Your task to perform on an android device: add a contact in the contacts app Image 0: 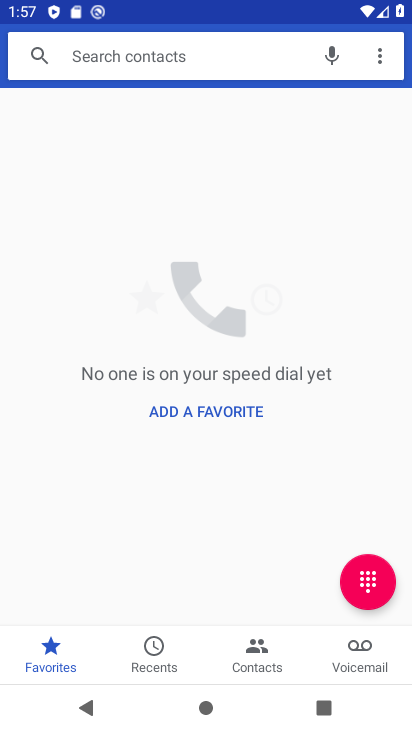
Step 0: press home button
Your task to perform on an android device: add a contact in the contacts app Image 1: 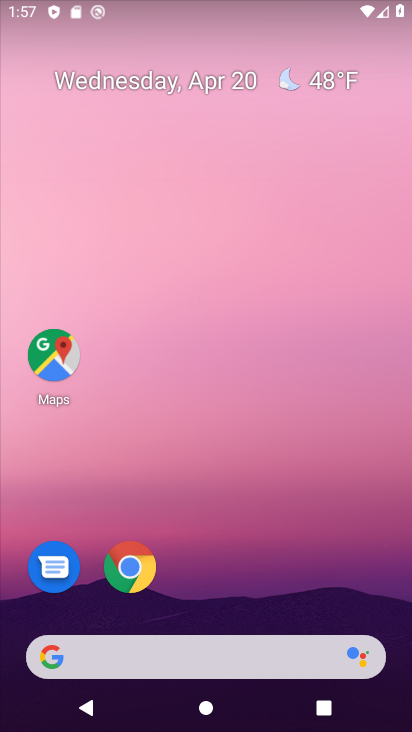
Step 1: drag from (270, 590) to (248, 129)
Your task to perform on an android device: add a contact in the contacts app Image 2: 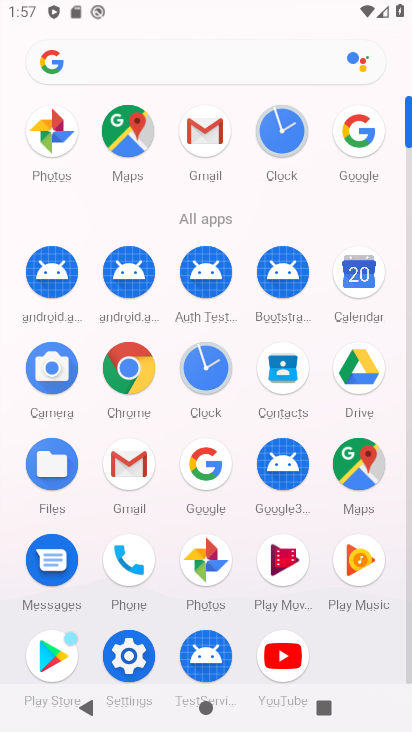
Step 2: click (275, 369)
Your task to perform on an android device: add a contact in the contacts app Image 3: 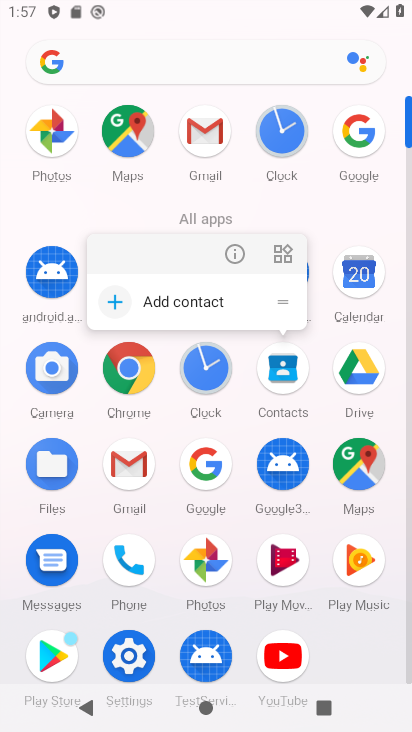
Step 3: click (276, 370)
Your task to perform on an android device: add a contact in the contacts app Image 4: 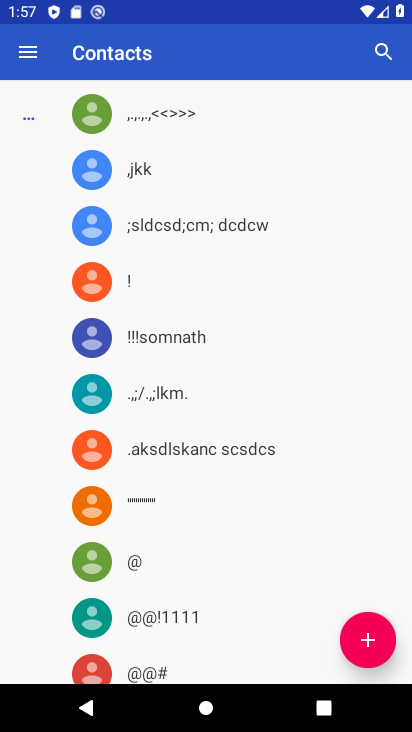
Step 4: click (375, 638)
Your task to perform on an android device: add a contact in the contacts app Image 5: 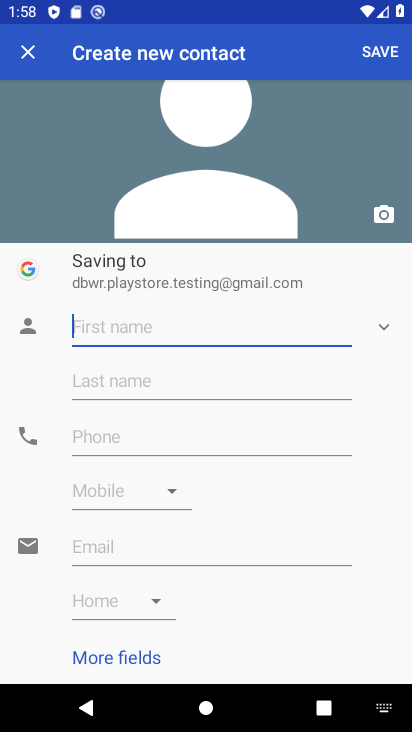
Step 5: type "oiuytfghj"
Your task to perform on an android device: add a contact in the contacts app Image 6: 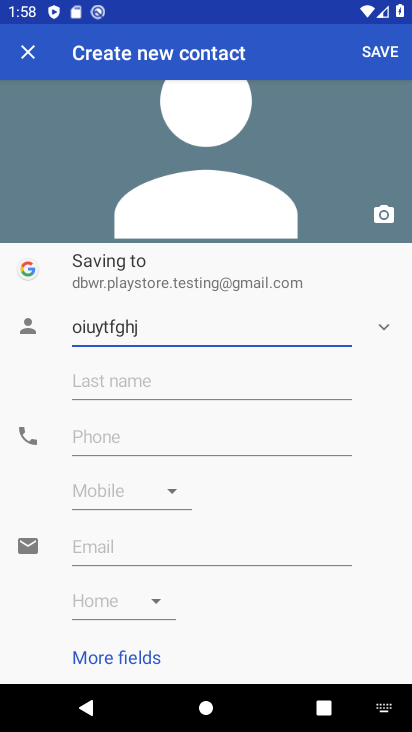
Step 6: click (162, 437)
Your task to perform on an android device: add a contact in the contacts app Image 7: 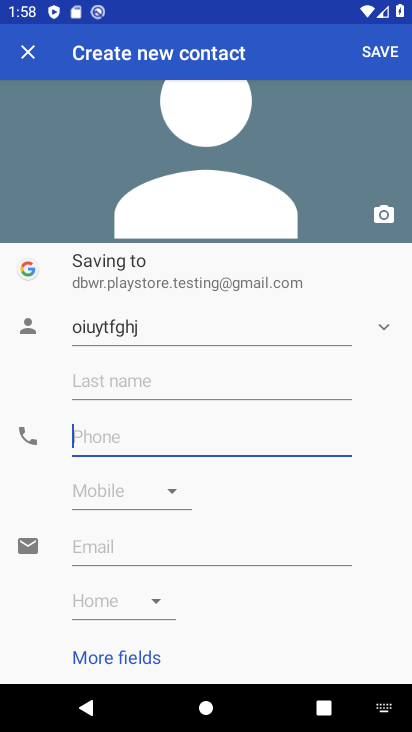
Step 7: type "56788765686"
Your task to perform on an android device: add a contact in the contacts app Image 8: 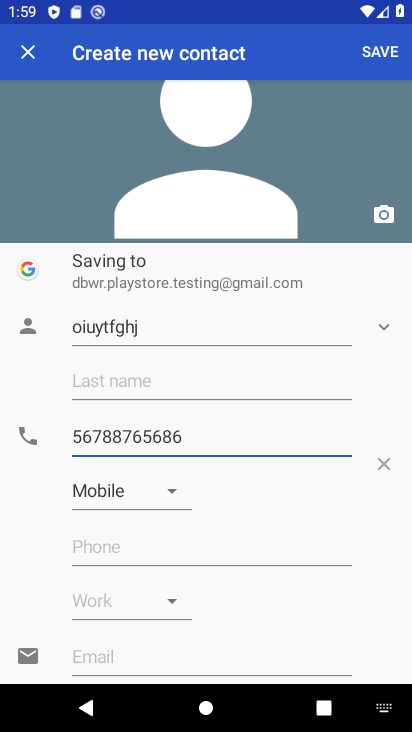
Step 8: click (380, 49)
Your task to perform on an android device: add a contact in the contacts app Image 9: 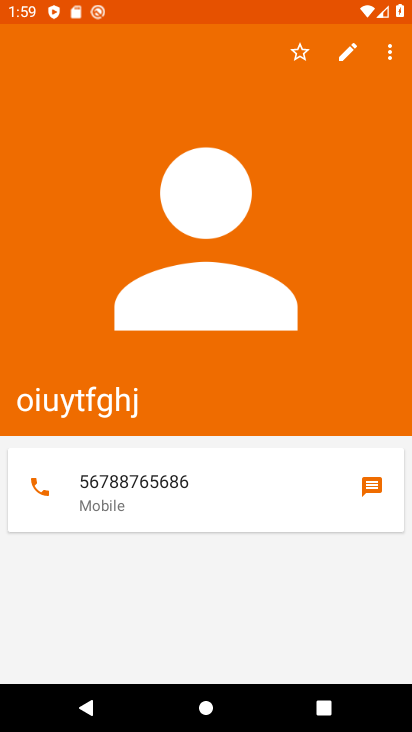
Step 9: task complete